Your task to perform on an android device: check storage Image 0: 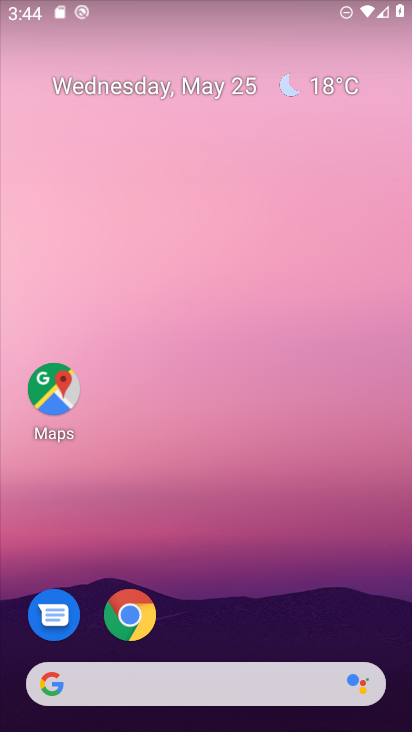
Step 0: drag from (253, 561) to (340, 50)
Your task to perform on an android device: check storage Image 1: 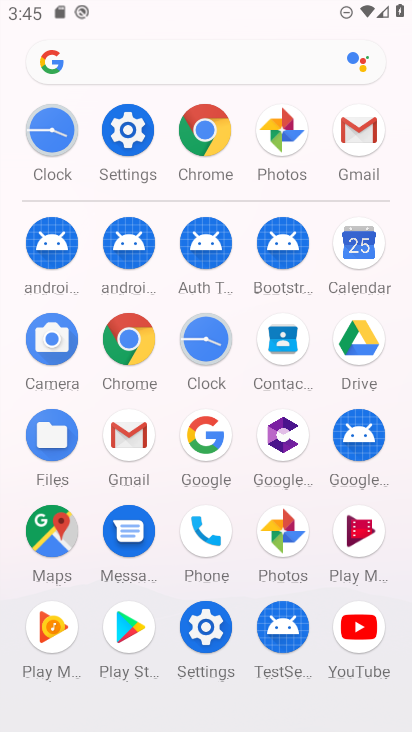
Step 1: click (128, 130)
Your task to perform on an android device: check storage Image 2: 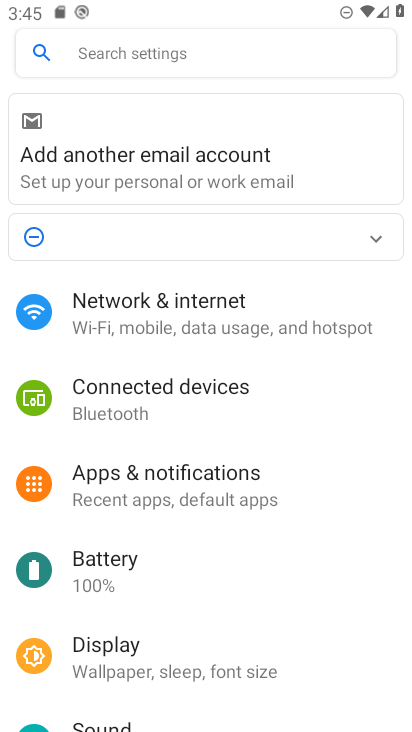
Step 2: drag from (198, 545) to (265, 184)
Your task to perform on an android device: check storage Image 3: 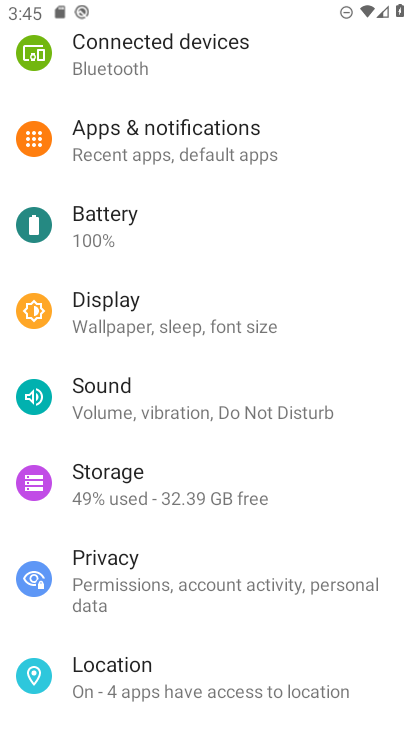
Step 3: click (211, 497)
Your task to perform on an android device: check storage Image 4: 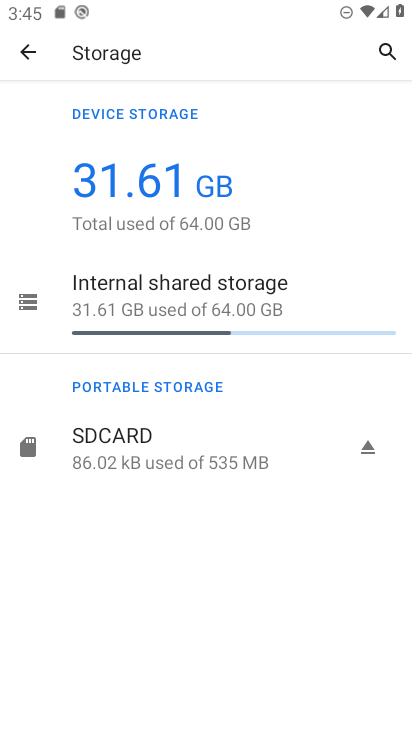
Step 4: task complete